Your task to perform on an android device: Go to location settings Image 0: 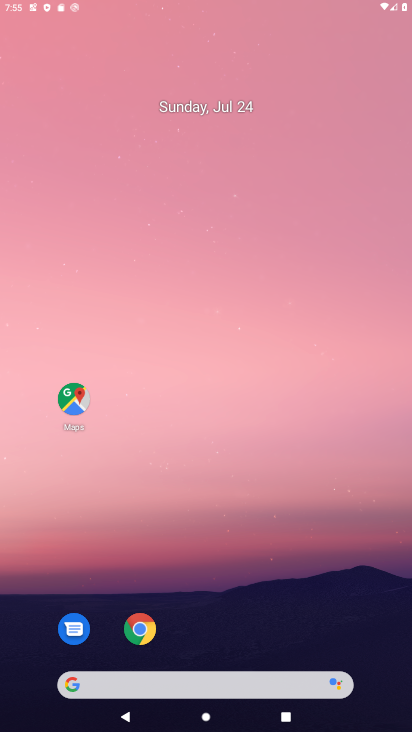
Step 0: click (229, 190)
Your task to perform on an android device: Go to location settings Image 1: 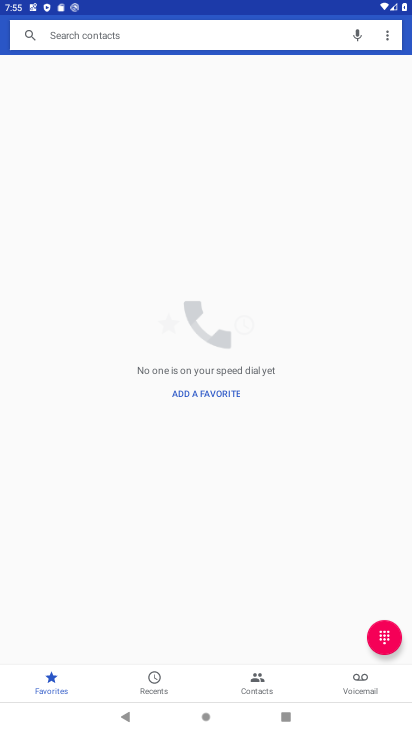
Step 1: press home button
Your task to perform on an android device: Go to location settings Image 2: 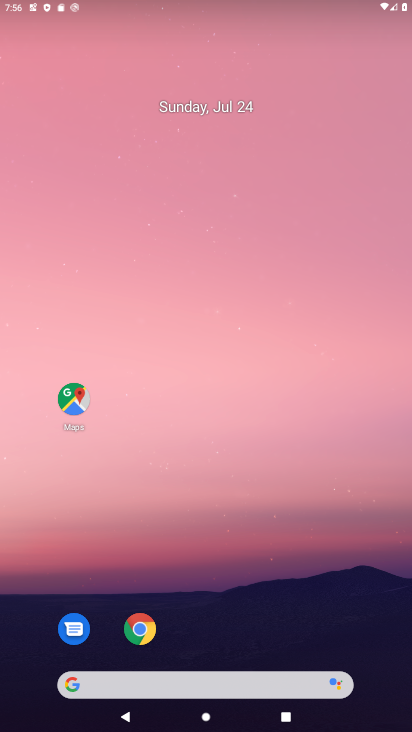
Step 2: drag from (202, 703) to (205, 302)
Your task to perform on an android device: Go to location settings Image 3: 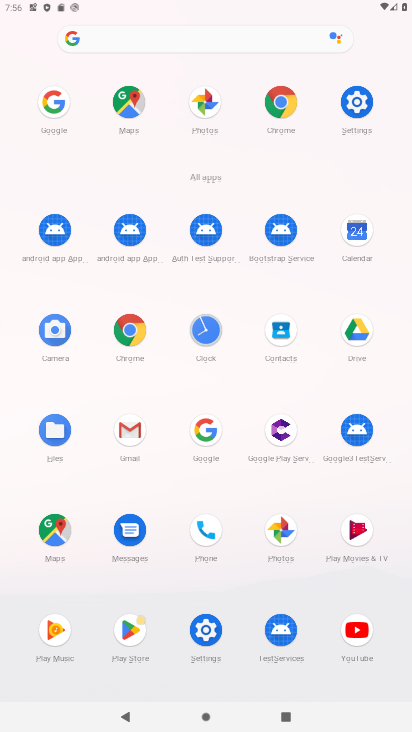
Step 3: click (364, 127)
Your task to perform on an android device: Go to location settings Image 4: 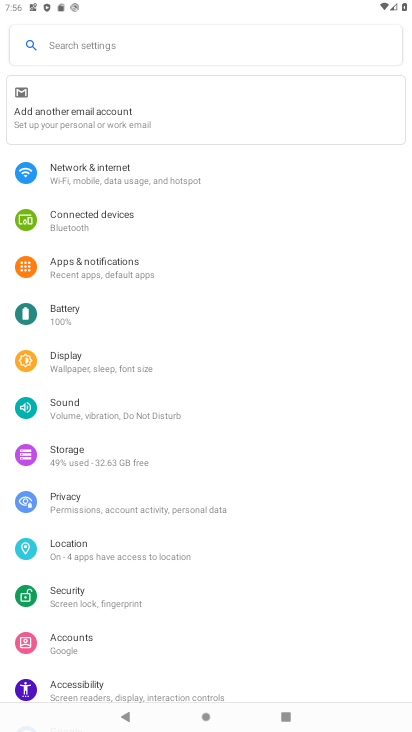
Step 4: click (89, 560)
Your task to perform on an android device: Go to location settings Image 5: 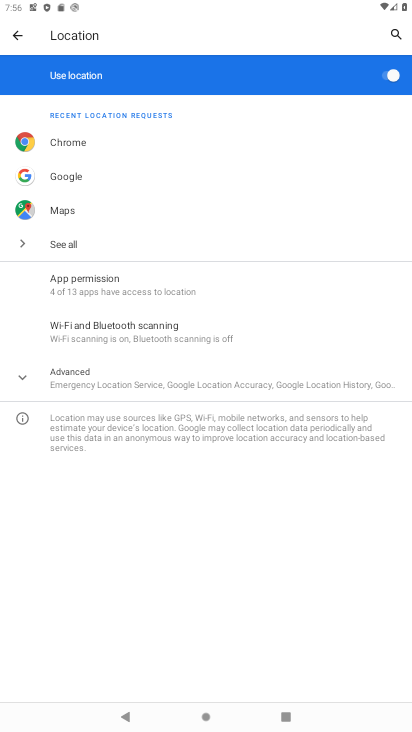
Step 5: click (155, 384)
Your task to perform on an android device: Go to location settings Image 6: 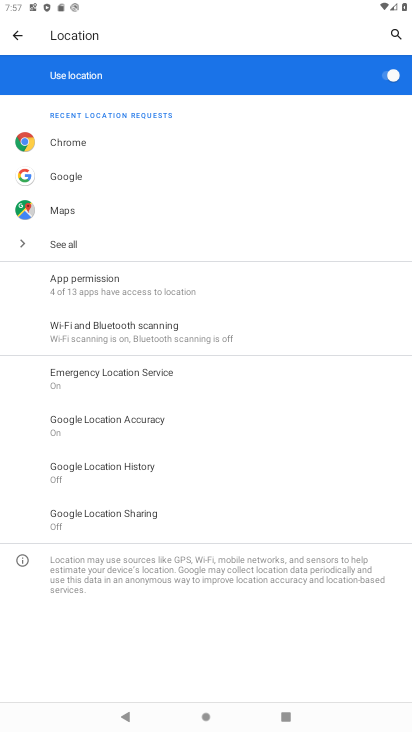
Step 6: task complete